Your task to perform on an android device: Do I have any events this weekend? Image 0: 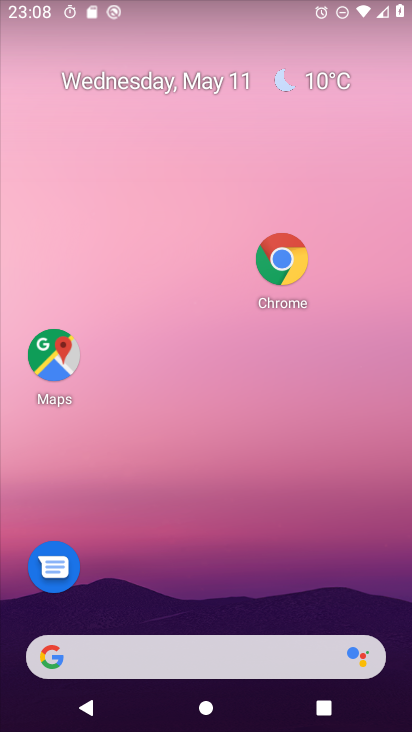
Step 0: drag from (138, 665) to (242, 161)
Your task to perform on an android device: Do I have any events this weekend? Image 1: 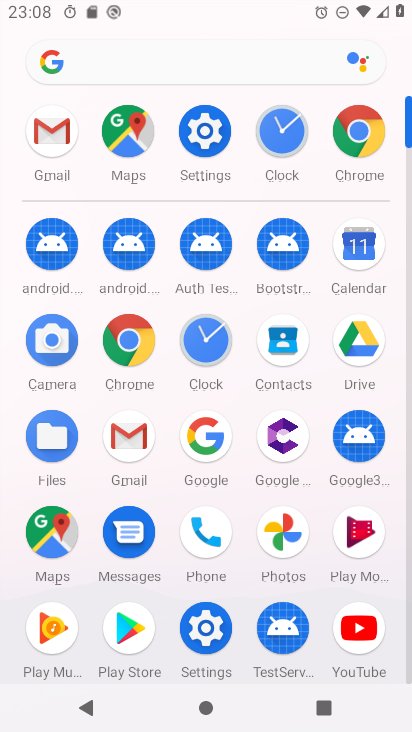
Step 1: click (362, 257)
Your task to perform on an android device: Do I have any events this weekend? Image 2: 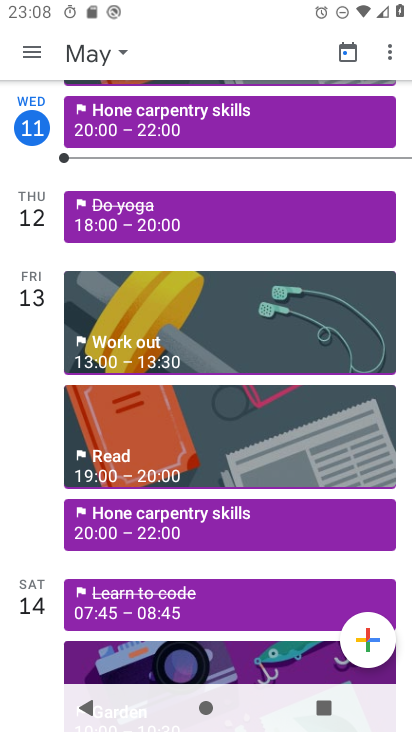
Step 2: click (82, 47)
Your task to perform on an android device: Do I have any events this weekend? Image 3: 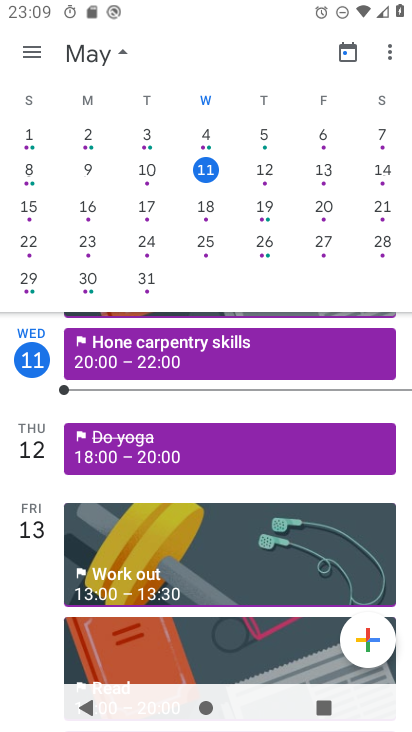
Step 3: click (386, 168)
Your task to perform on an android device: Do I have any events this weekend? Image 4: 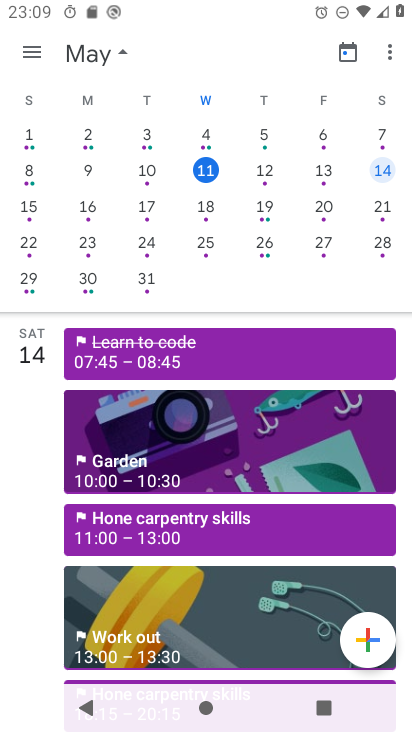
Step 4: click (34, 48)
Your task to perform on an android device: Do I have any events this weekend? Image 5: 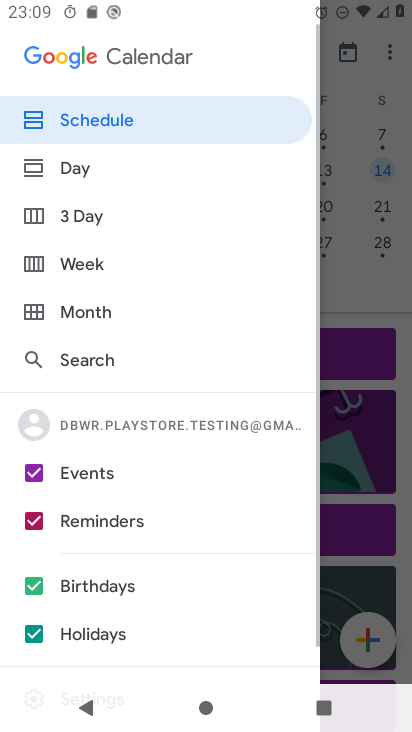
Step 5: click (103, 120)
Your task to perform on an android device: Do I have any events this weekend? Image 6: 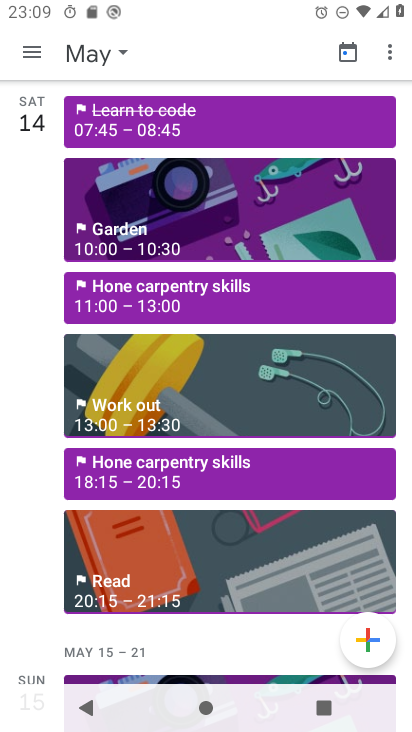
Step 6: task complete